Your task to perform on an android device: Open my contact list Image 0: 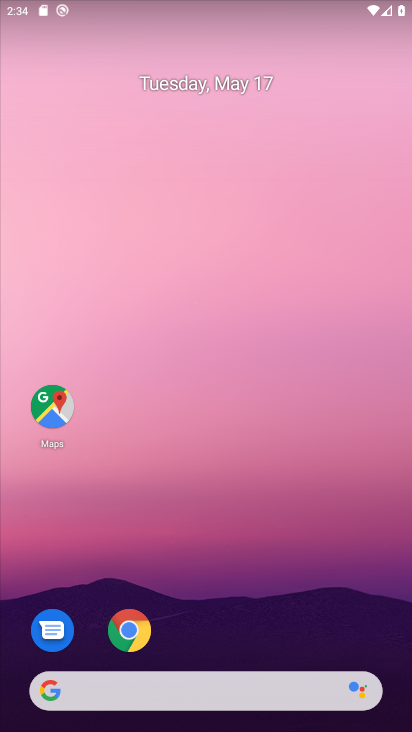
Step 0: drag from (223, 640) to (273, 93)
Your task to perform on an android device: Open my contact list Image 1: 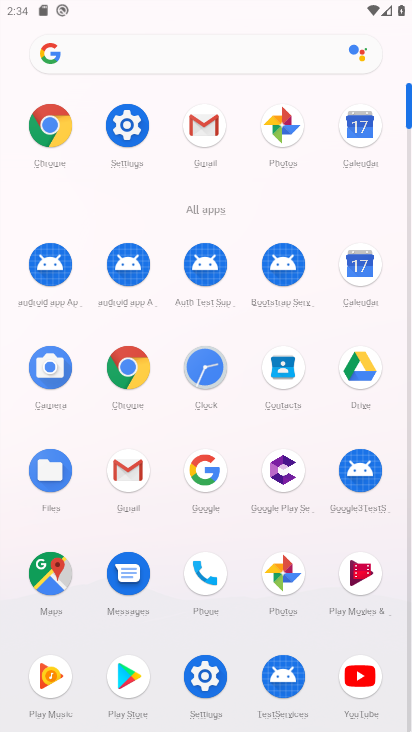
Step 1: click (278, 374)
Your task to perform on an android device: Open my contact list Image 2: 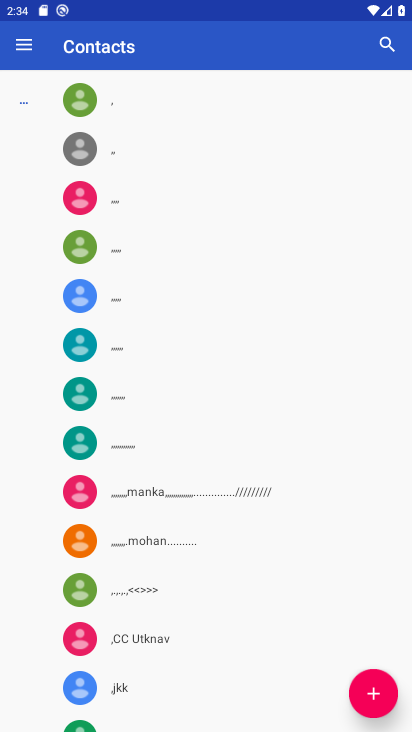
Step 2: task complete